Your task to perform on an android device: uninstall "Adobe Acrobat Reader: Edit PDF" Image 0: 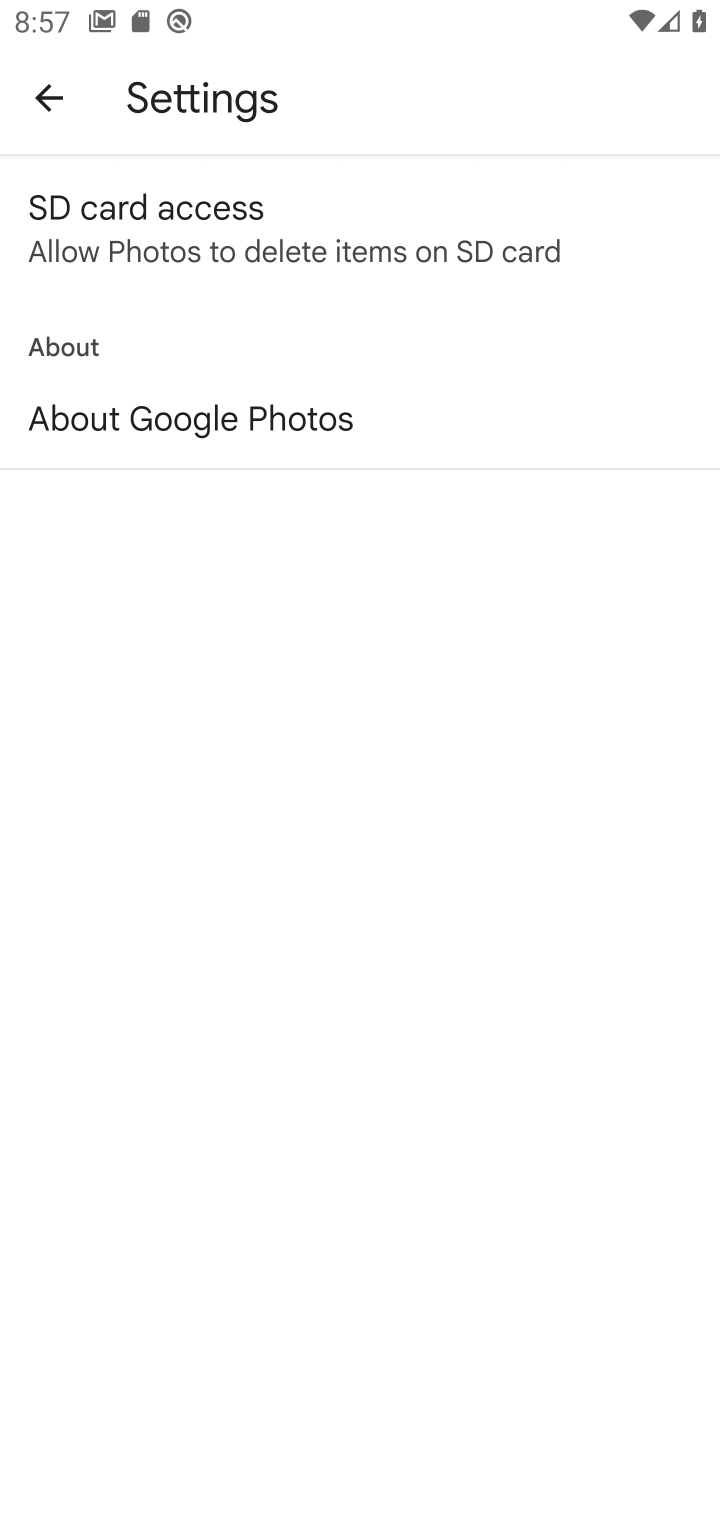
Step 0: press home button
Your task to perform on an android device: uninstall "Adobe Acrobat Reader: Edit PDF" Image 1: 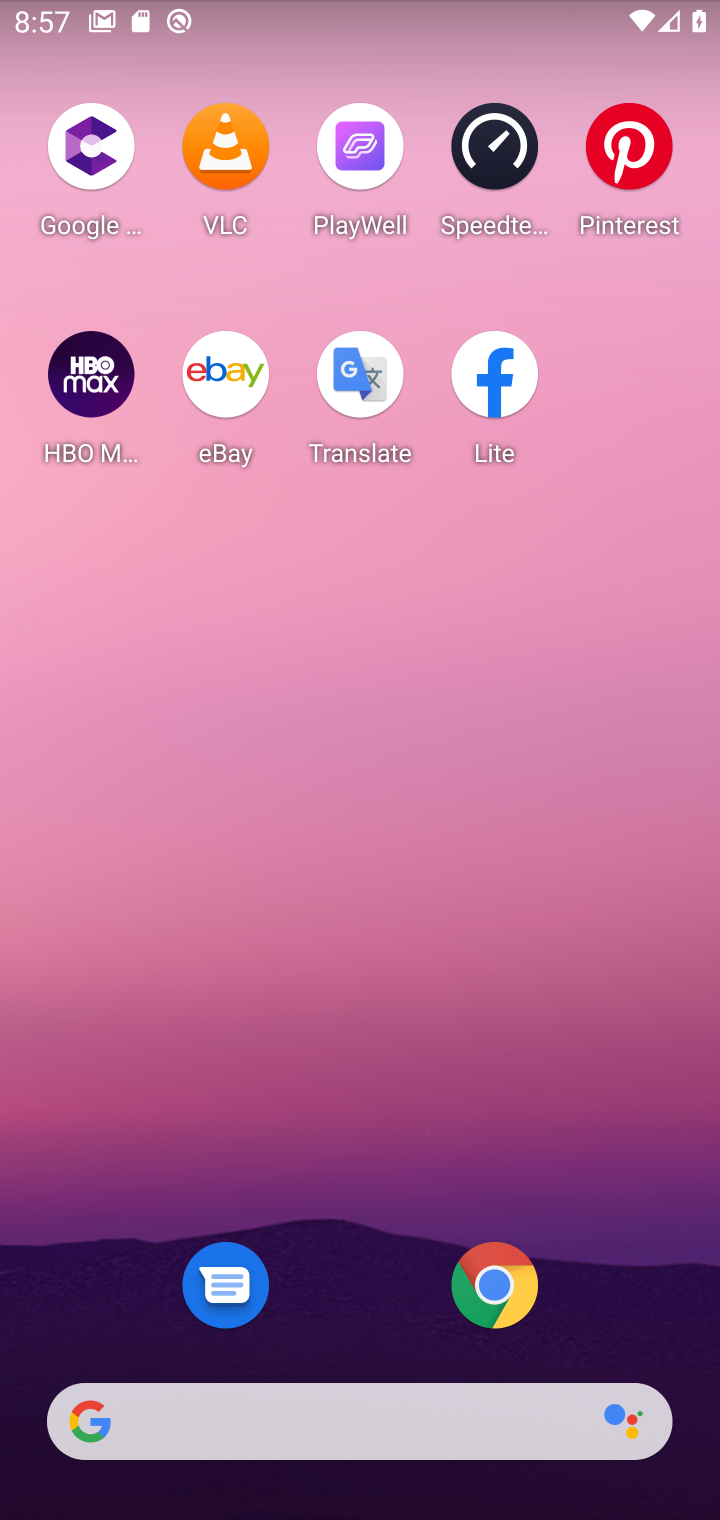
Step 1: drag from (389, 1125) to (388, 214)
Your task to perform on an android device: uninstall "Adobe Acrobat Reader: Edit PDF" Image 2: 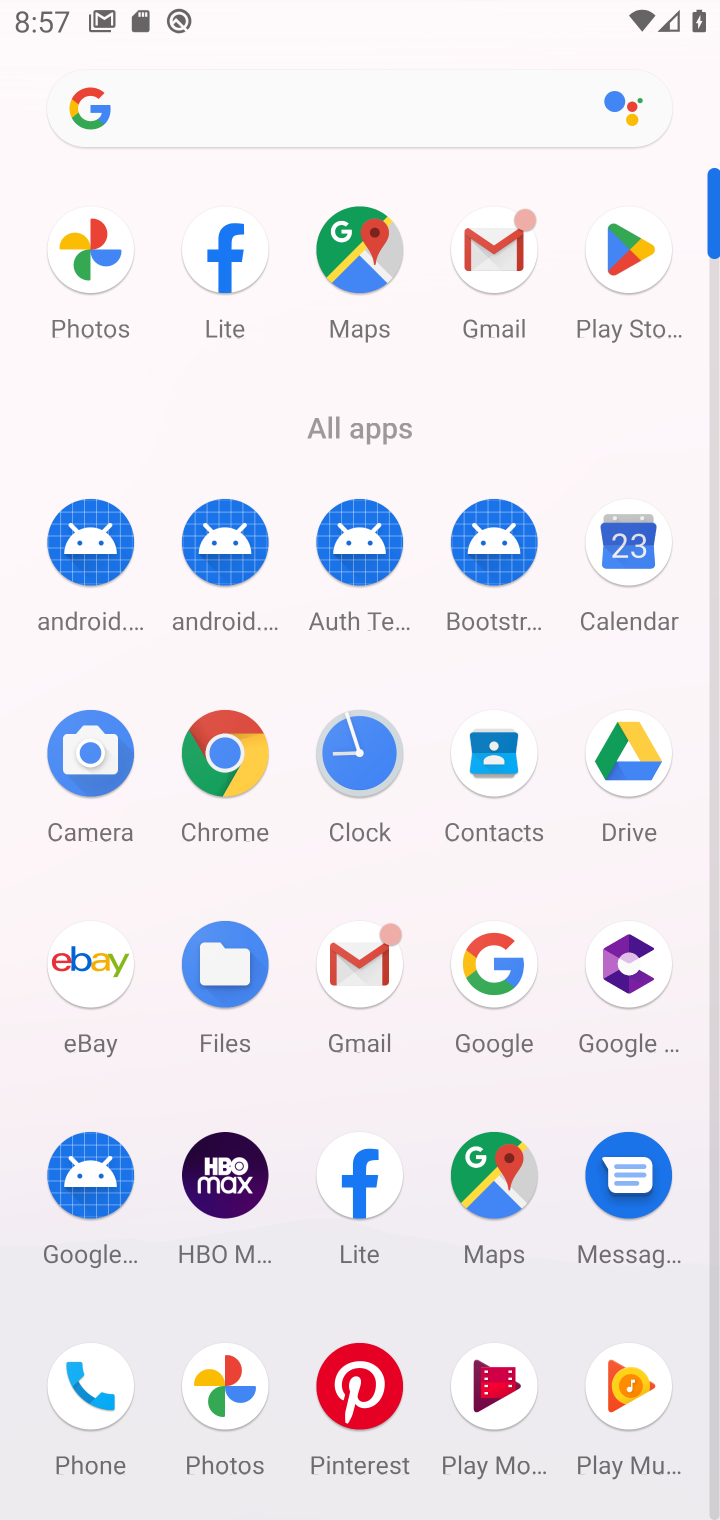
Step 2: drag from (421, 1305) to (440, 761)
Your task to perform on an android device: uninstall "Adobe Acrobat Reader: Edit PDF" Image 3: 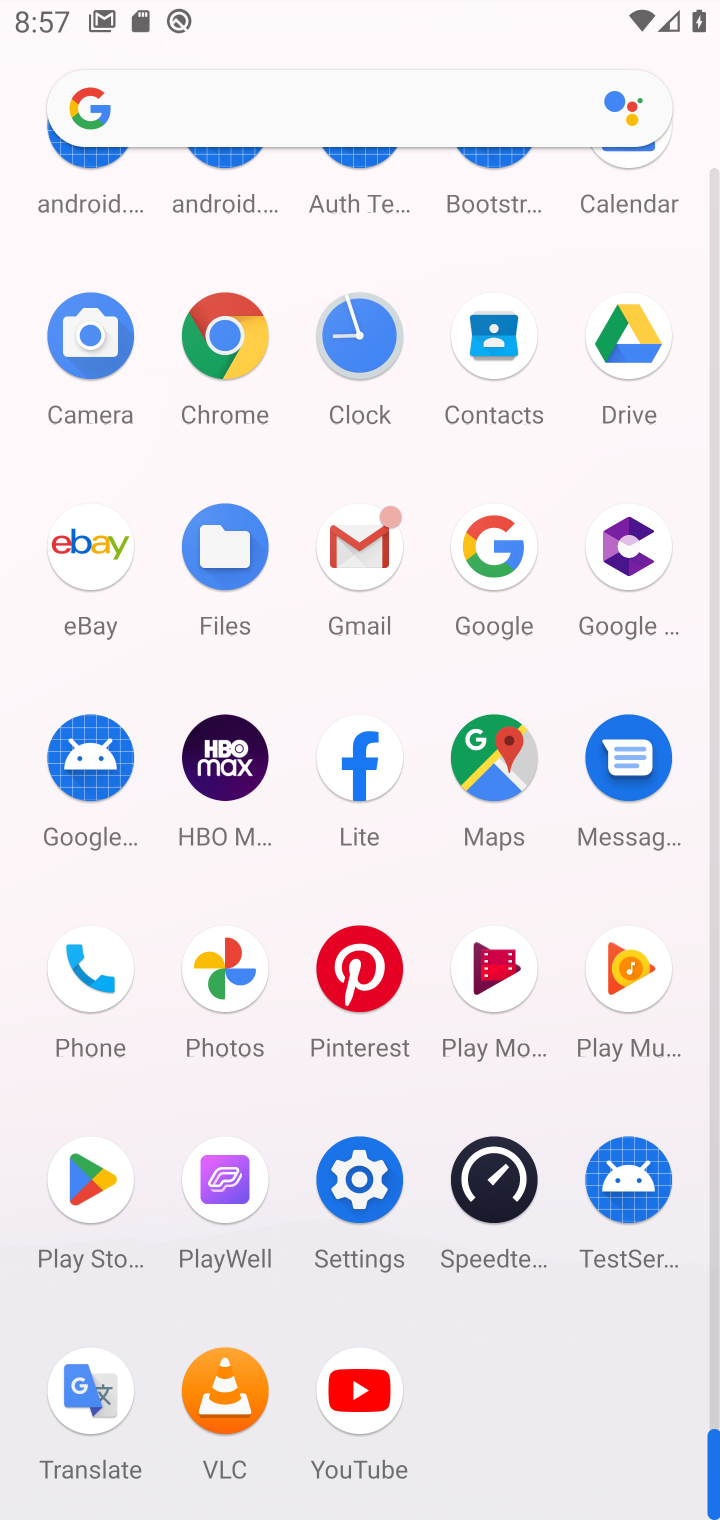
Step 3: click (100, 1175)
Your task to perform on an android device: uninstall "Adobe Acrobat Reader: Edit PDF" Image 4: 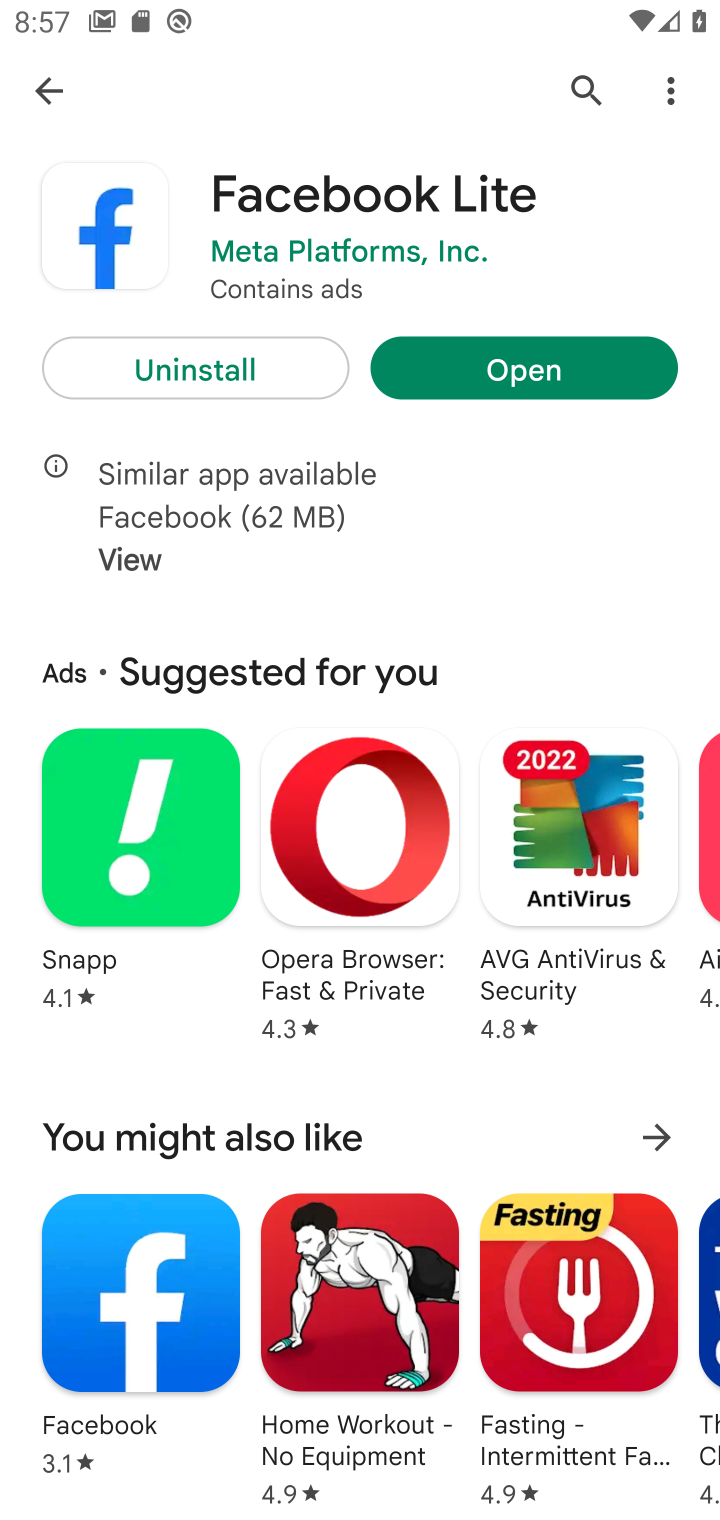
Step 4: click (590, 91)
Your task to perform on an android device: uninstall "Adobe Acrobat Reader: Edit PDF" Image 5: 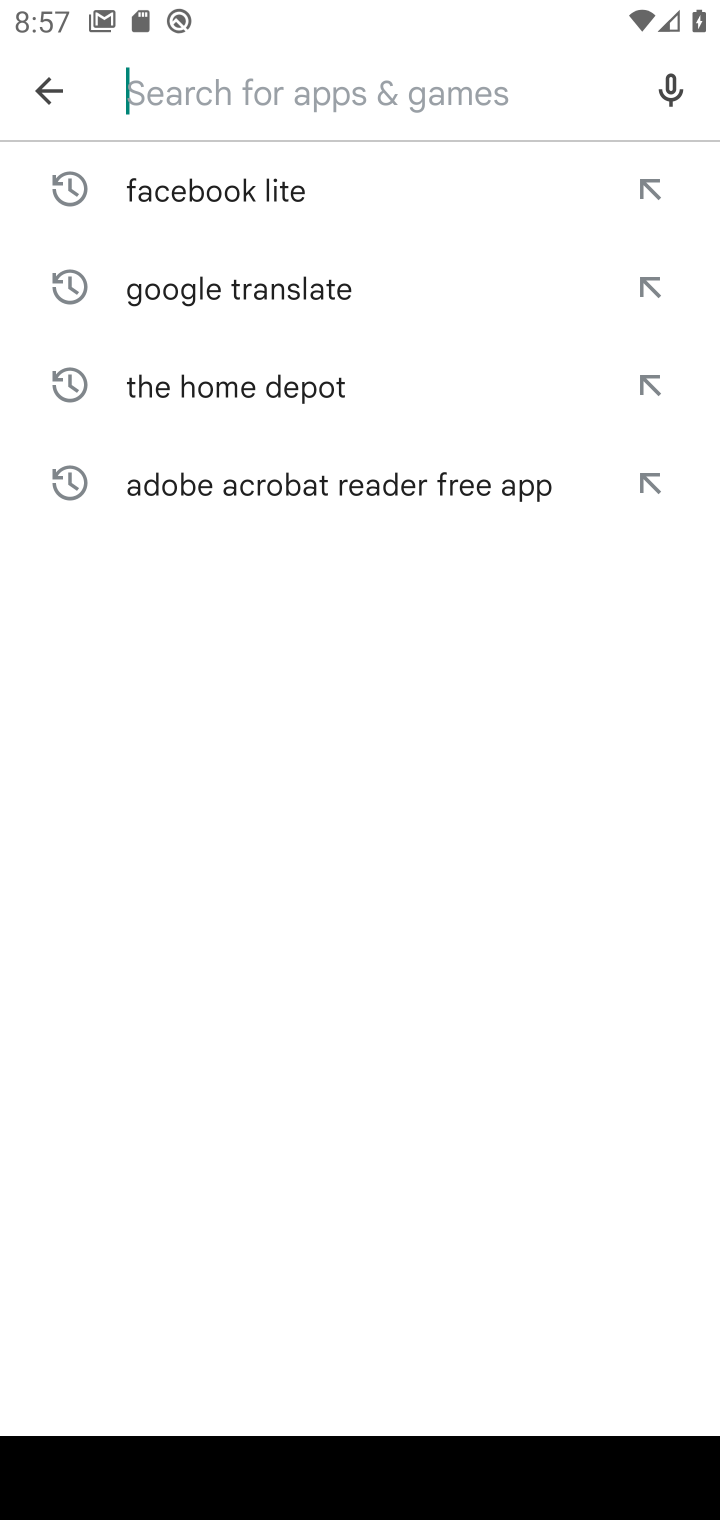
Step 5: type "Adobe Acrobat Reader: Edit PDF"
Your task to perform on an android device: uninstall "Adobe Acrobat Reader: Edit PDF" Image 6: 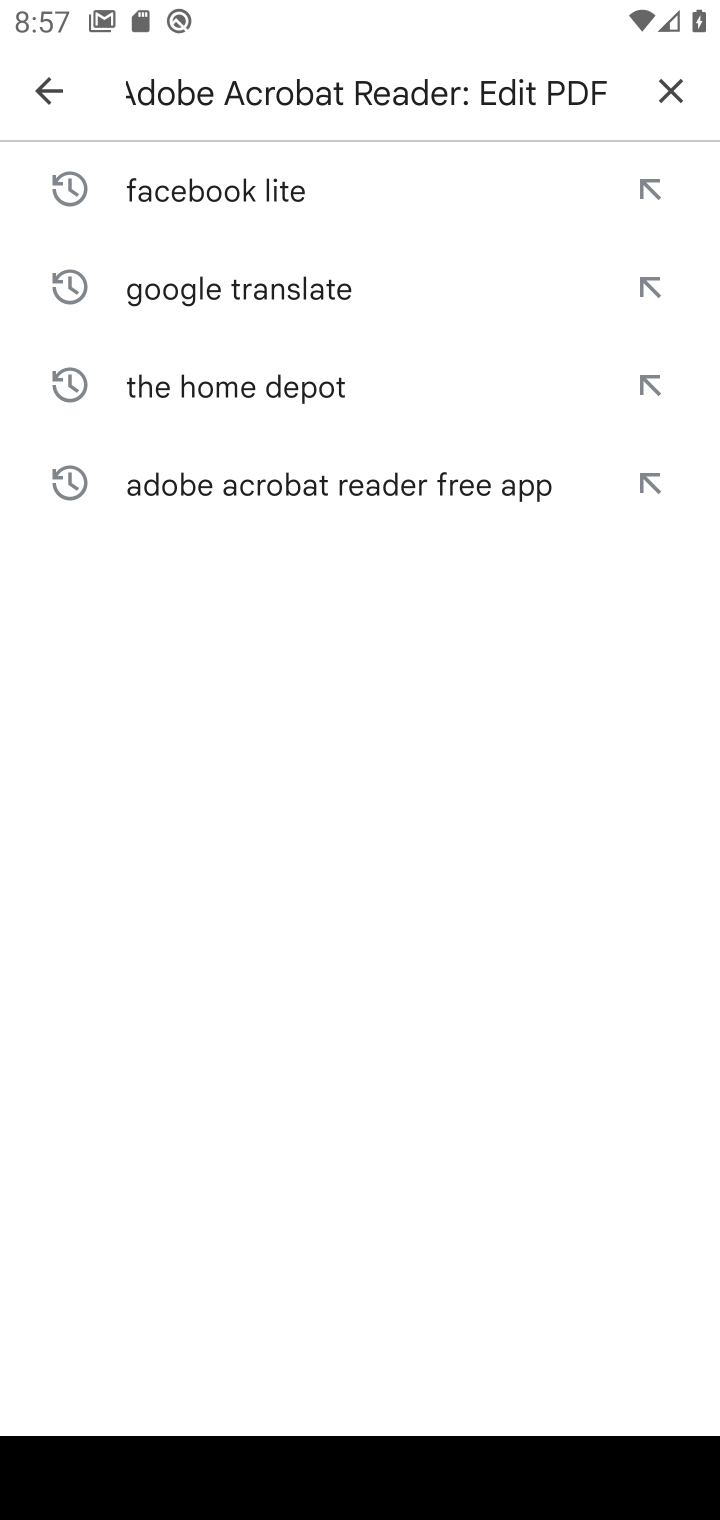
Step 6: click (324, 484)
Your task to perform on an android device: uninstall "Adobe Acrobat Reader: Edit PDF" Image 7: 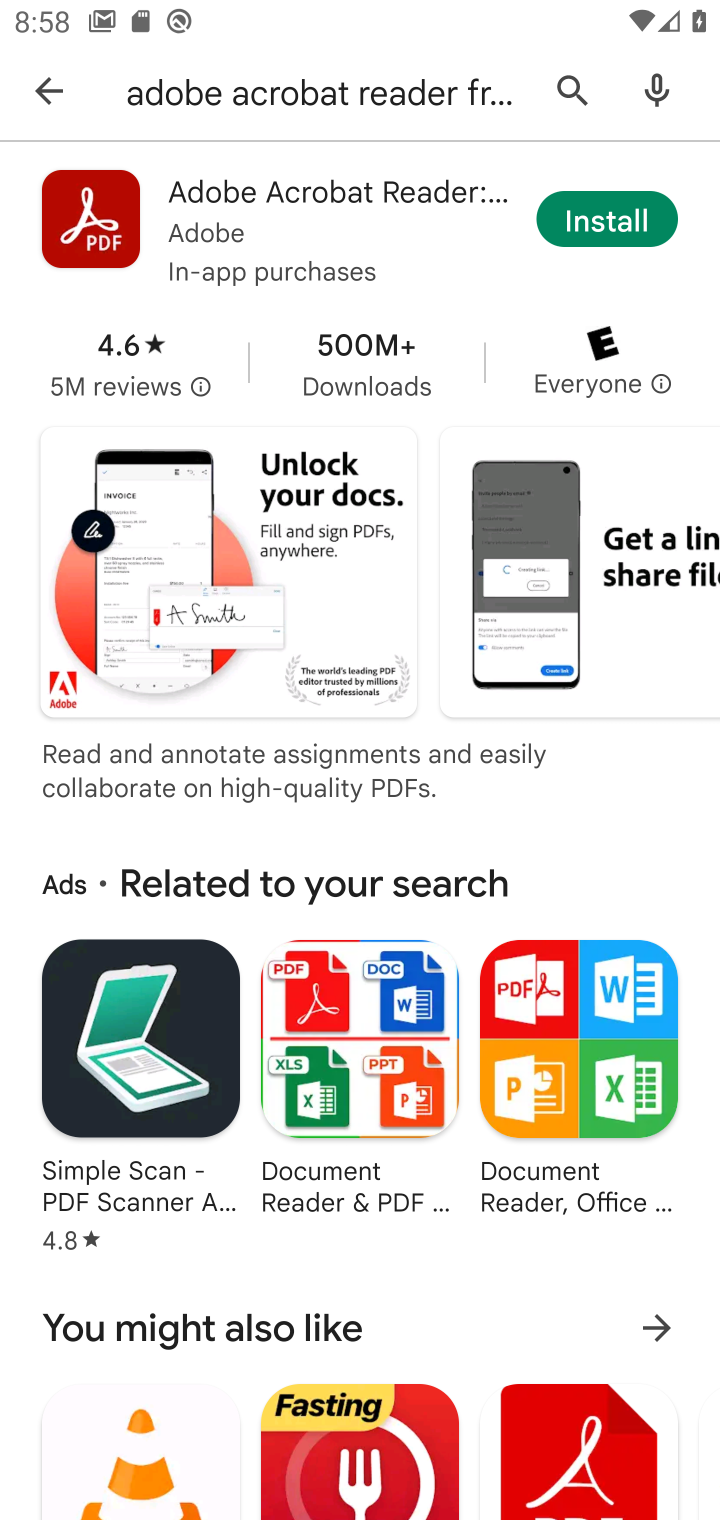
Step 7: task complete